Your task to perform on an android device: set an alarm Image 0: 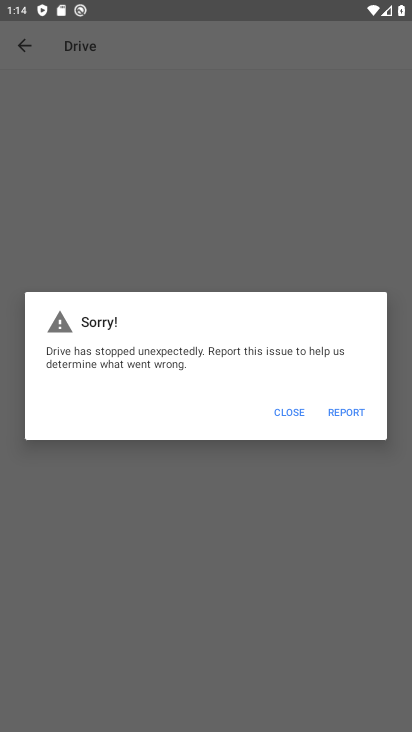
Step 0: press home button
Your task to perform on an android device: set an alarm Image 1: 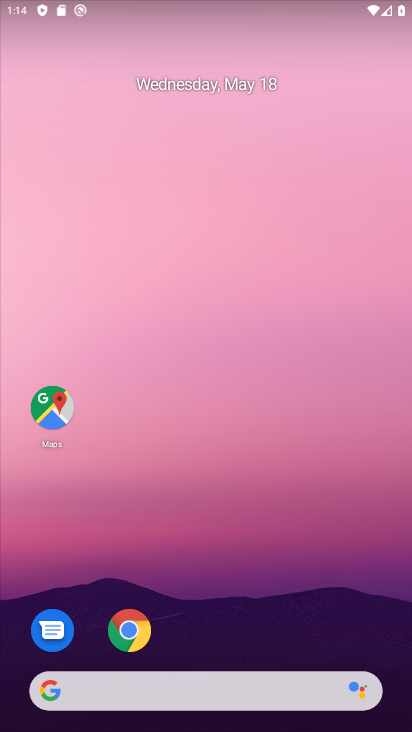
Step 1: drag from (69, 550) to (232, 217)
Your task to perform on an android device: set an alarm Image 2: 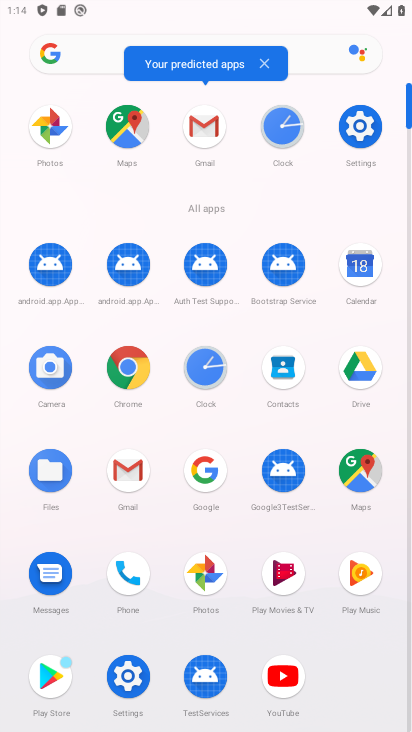
Step 2: click (220, 368)
Your task to perform on an android device: set an alarm Image 3: 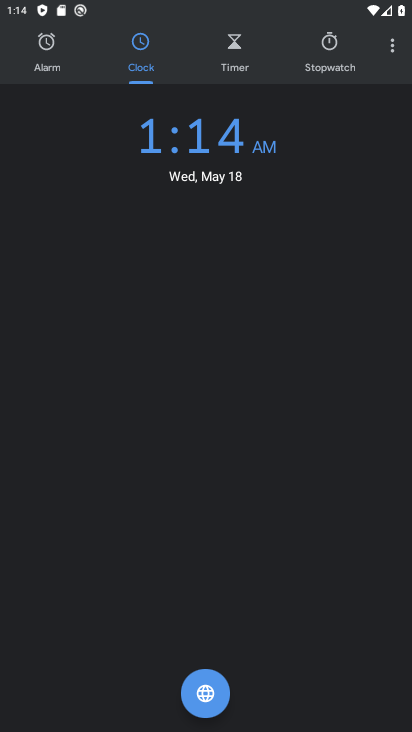
Step 3: click (59, 46)
Your task to perform on an android device: set an alarm Image 4: 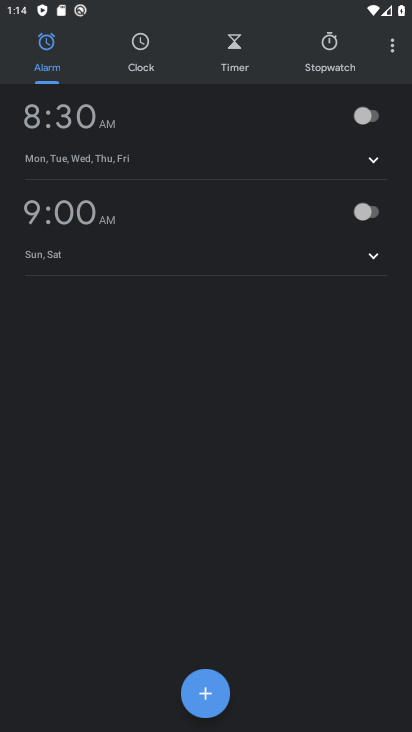
Step 4: click (212, 691)
Your task to perform on an android device: set an alarm Image 5: 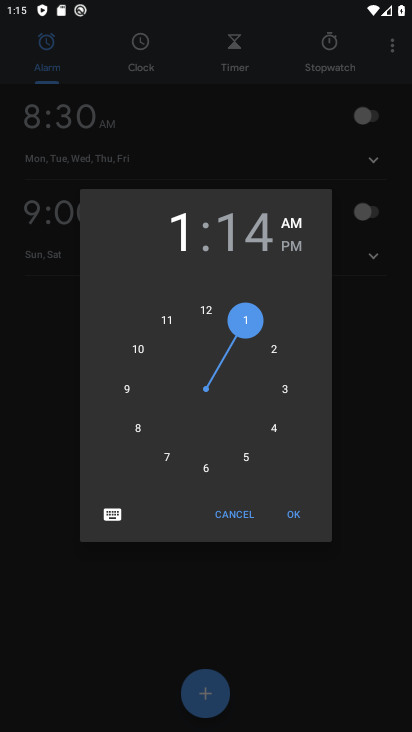
Step 5: click (283, 517)
Your task to perform on an android device: set an alarm Image 6: 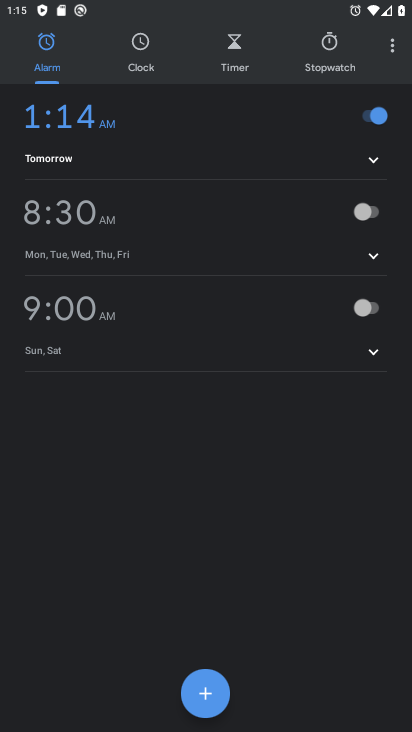
Step 6: task complete